Your task to perform on an android device: Open the web browser Image 0: 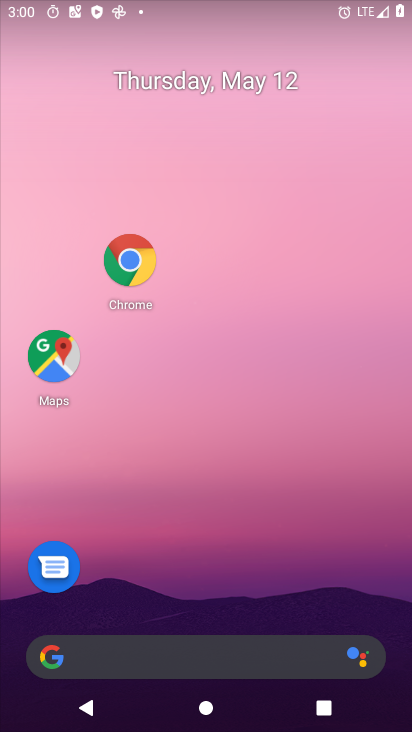
Step 0: click (126, 262)
Your task to perform on an android device: Open the web browser Image 1: 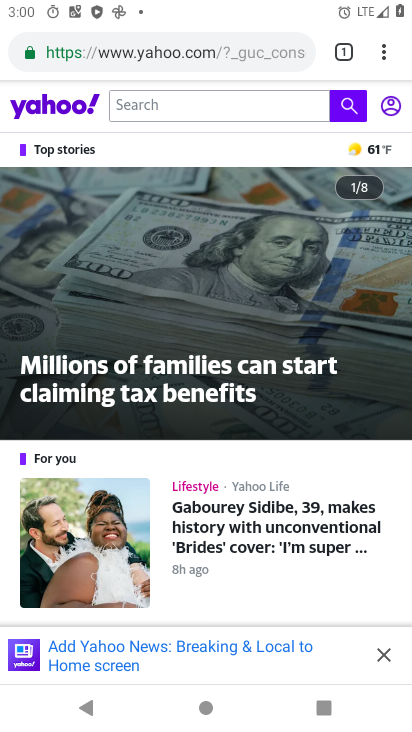
Step 1: click (262, 51)
Your task to perform on an android device: Open the web browser Image 2: 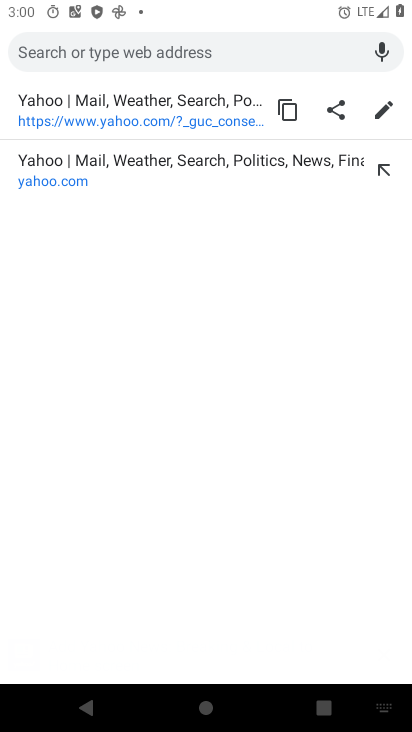
Step 2: task complete